Your task to perform on an android device: turn off translation in the chrome app Image 0: 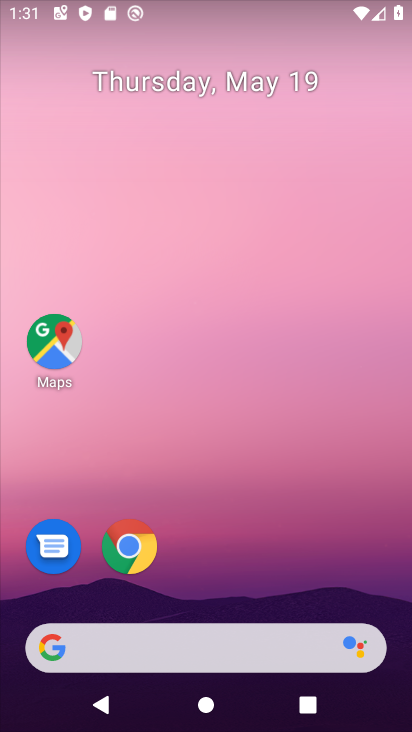
Step 0: click (127, 548)
Your task to perform on an android device: turn off translation in the chrome app Image 1: 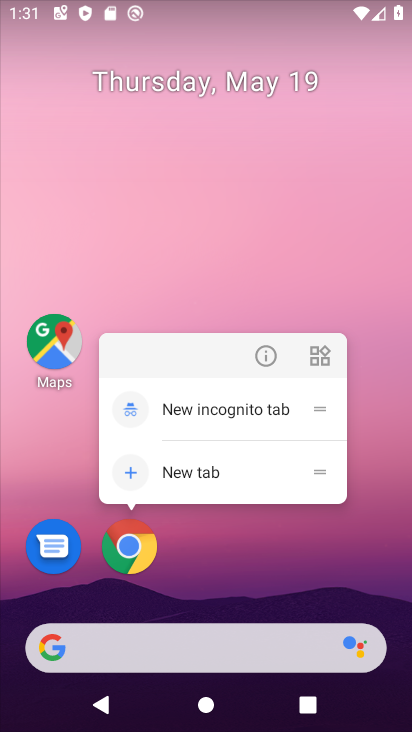
Step 1: click (130, 551)
Your task to perform on an android device: turn off translation in the chrome app Image 2: 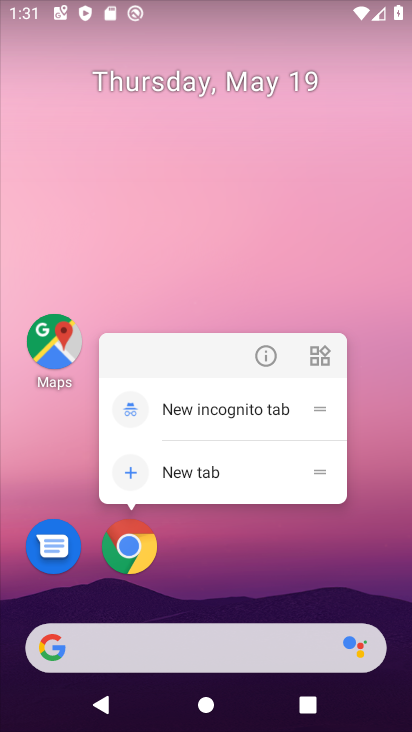
Step 2: click (131, 542)
Your task to perform on an android device: turn off translation in the chrome app Image 3: 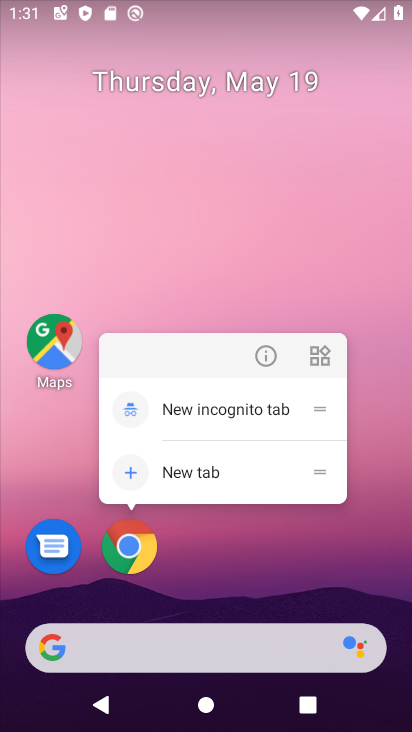
Step 3: click (270, 353)
Your task to perform on an android device: turn off translation in the chrome app Image 4: 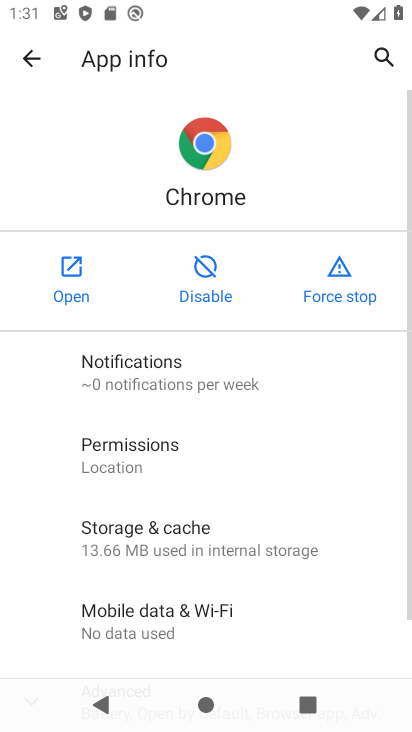
Step 4: click (82, 278)
Your task to perform on an android device: turn off translation in the chrome app Image 5: 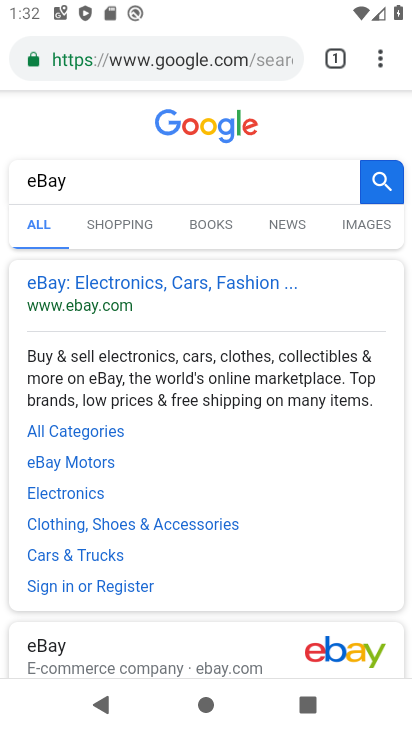
Step 5: click (384, 62)
Your task to perform on an android device: turn off translation in the chrome app Image 6: 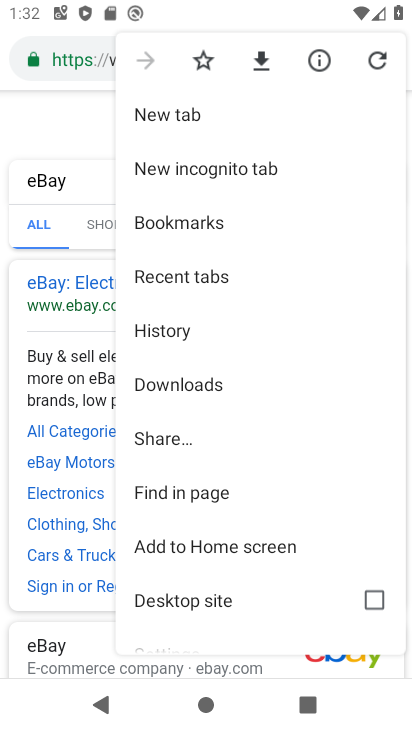
Step 6: drag from (208, 567) to (275, 218)
Your task to perform on an android device: turn off translation in the chrome app Image 7: 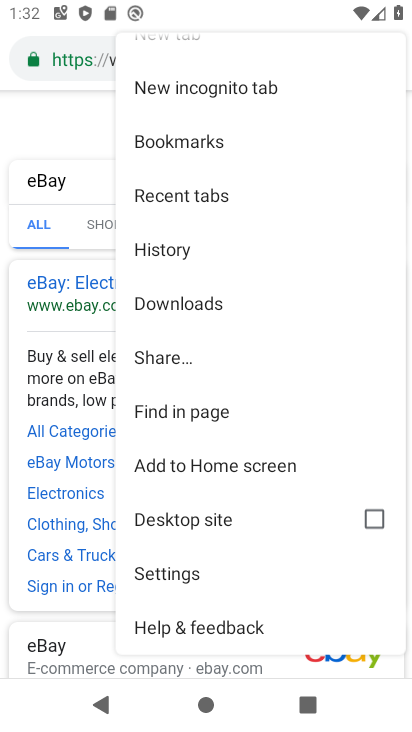
Step 7: click (183, 569)
Your task to perform on an android device: turn off translation in the chrome app Image 8: 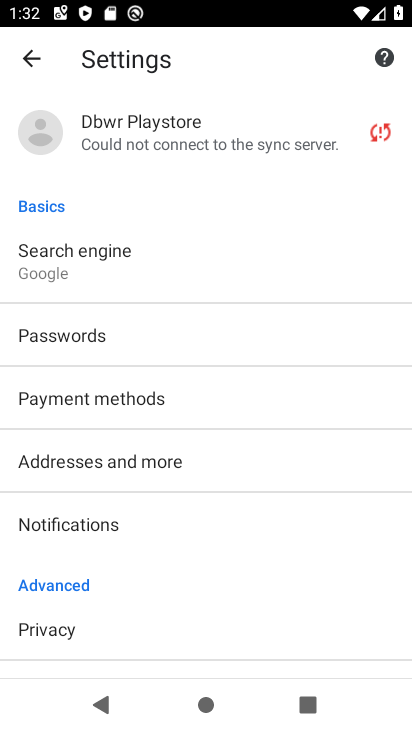
Step 8: drag from (125, 519) to (132, 213)
Your task to perform on an android device: turn off translation in the chrome app Image 9: 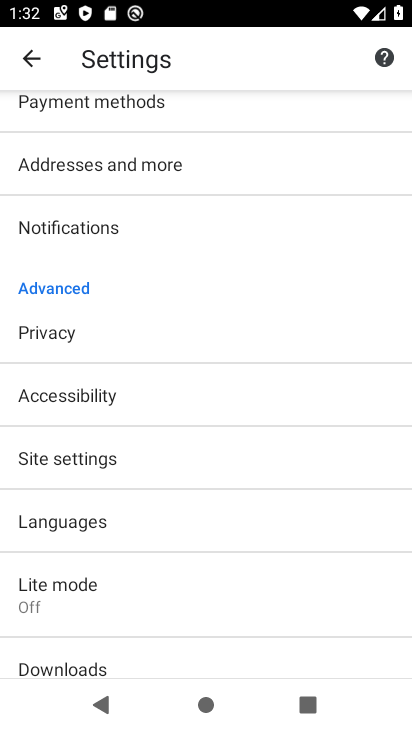
Step 9: click (41, 527)
Your task to perform on an android device: turn off translation in the chrome app Image 10: 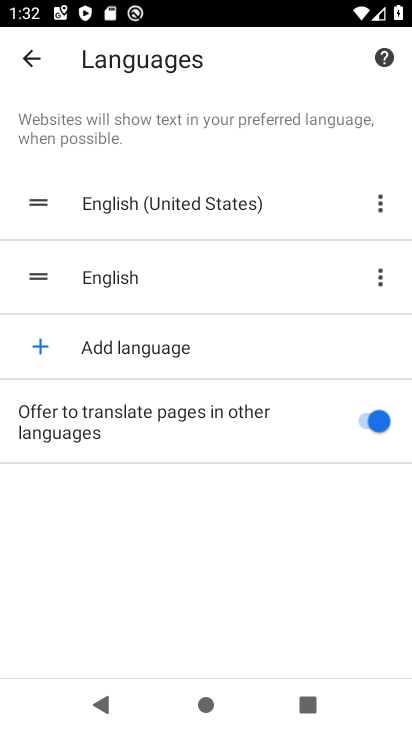
Step 10: click (366, 420)
Your task to perform on an android device: turn off translation in the chrome app Image 11: 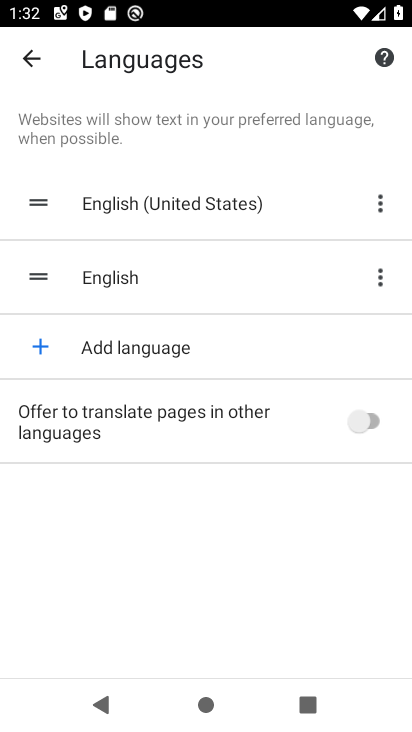
Step 11: task complete